Your task to perform on an android device: toggle translation in the chrome app Image 0: 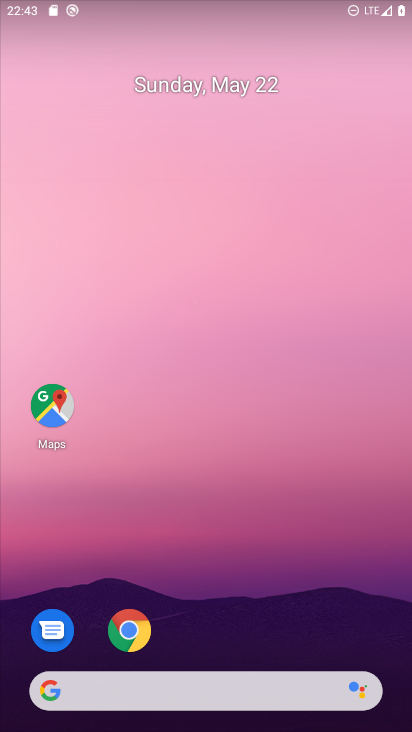
Step 0: press home button
Your task to perform on an android device: toggle translation in the chrome app Image 1: 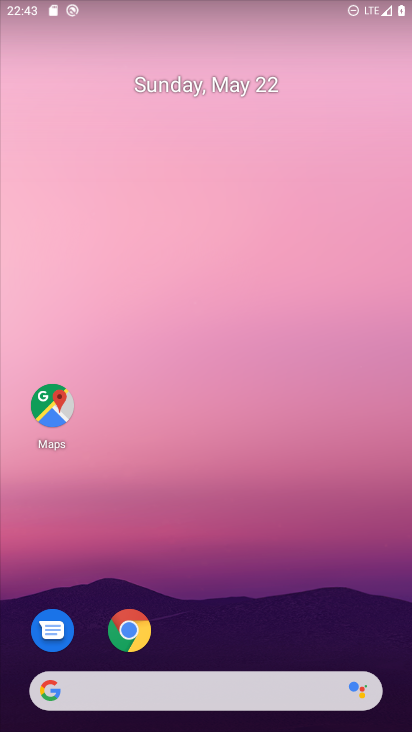
Step 1: click (124, 636)
Your task to perform on an android device: toggle translation in the chrome app Image 2: 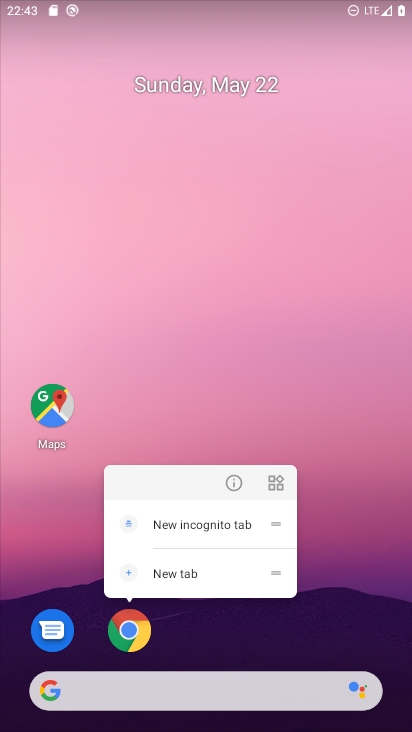
Step 2: click (141, 636)
Your task to perform on an android device: toggle translation in the chrome app Image 3: 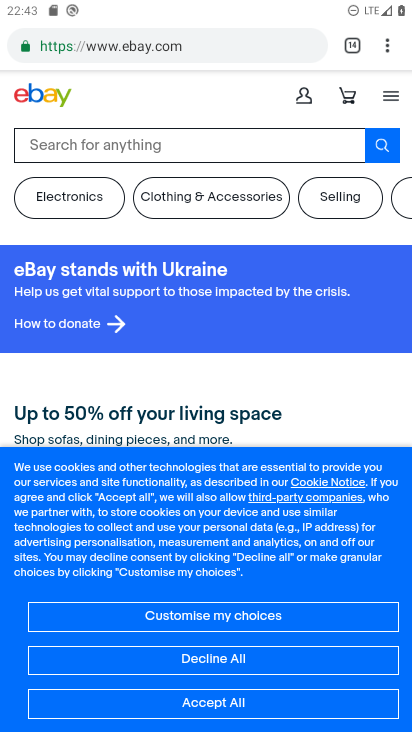
Step 3: drag from (383, 48) to (252, 555)
Your task to perform on an android device: toggle translation in the chrome app Image 4: 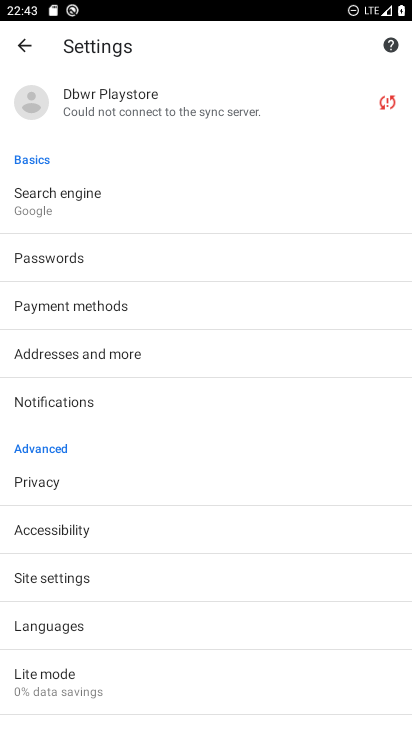
Step 4: click (90, 625)
Your task to perform on an android device: toggle translation in the chrome app Image 5: 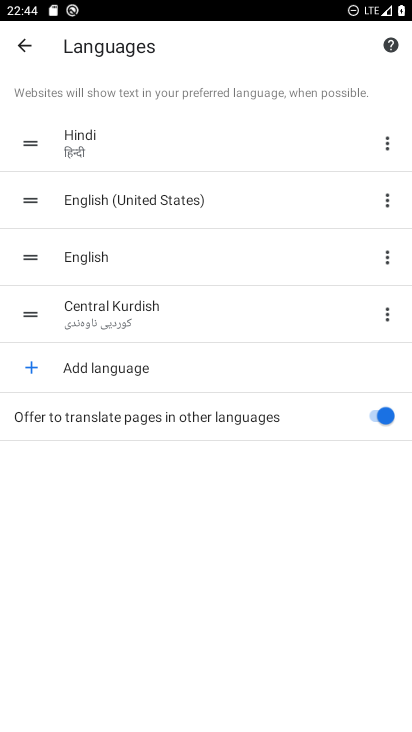
Step 5: click (374, 417)
Your task to perform on an android device: toggle translation in the chrome app Image 6: 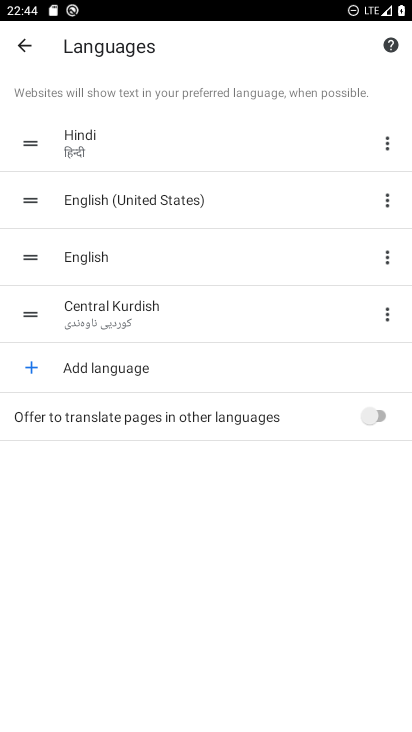
Step 6: task complete